Your task to perform on an android device: search for starred emails in the gmail app Image 0: 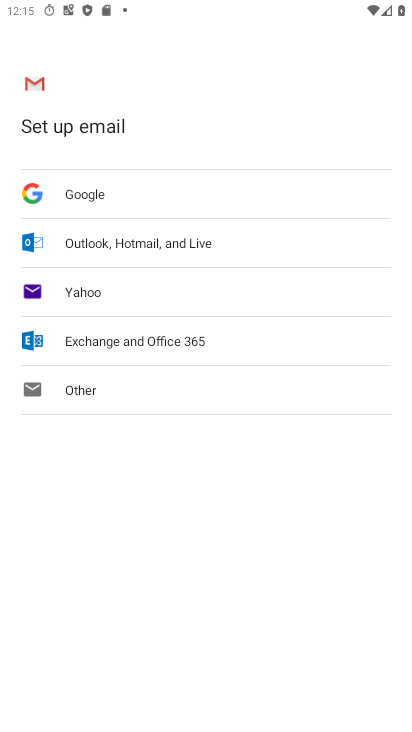
Step 0: press home button
Your task to perform on an android device: search for starred emails in the gmail app Image 1: 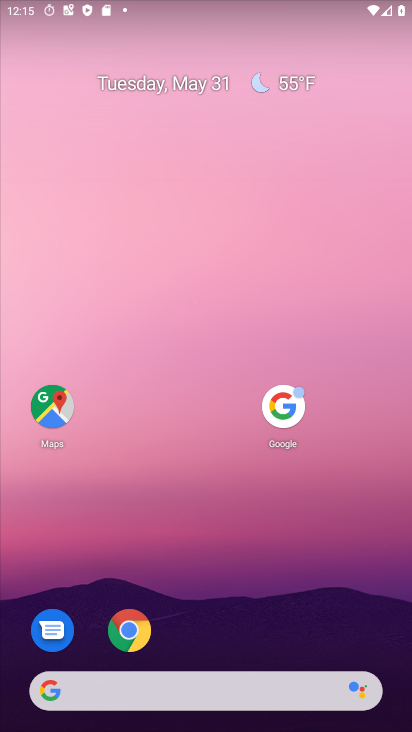
Step 1: drag from (255, 702) to (371, 59)
Your task to perform on an android device: search for starred emails in the gmail app Image 2: 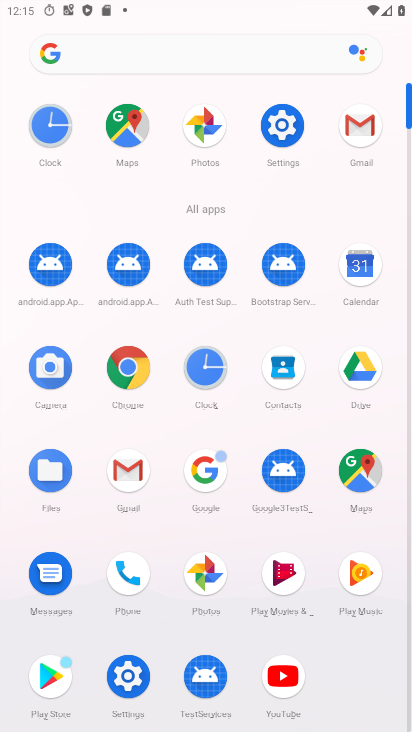
Step 2: click (360, 135)
Your task to perform on an android device: search for starred emails in the gmail app Image 3: 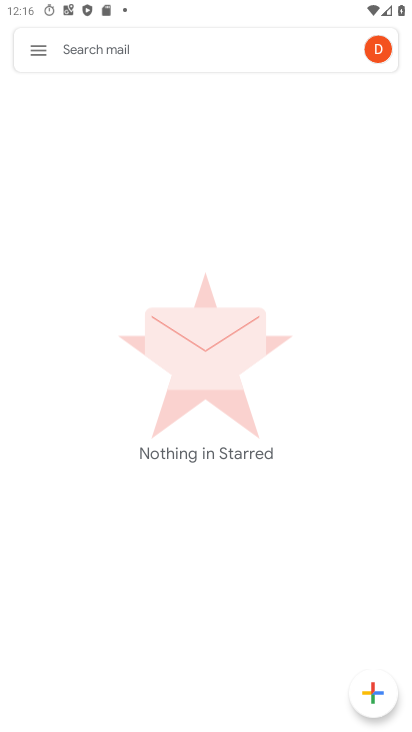
Step 3: task complete